Your task to perform on an android device: What's on my calendar today? Image 0: 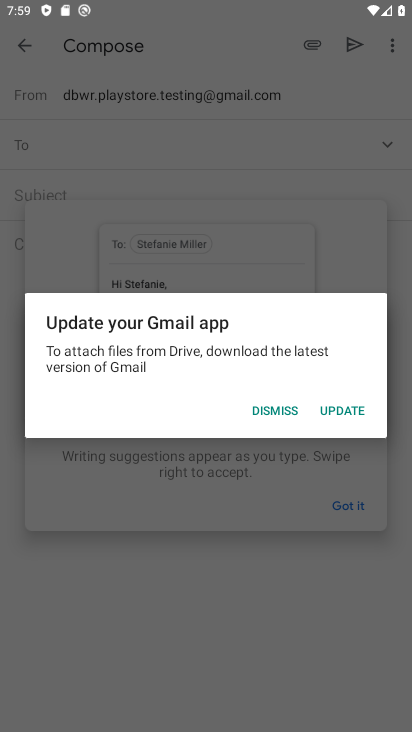
Step 0: press home button
Your task to perform on an android device: What's on my calendar today? Image 1: 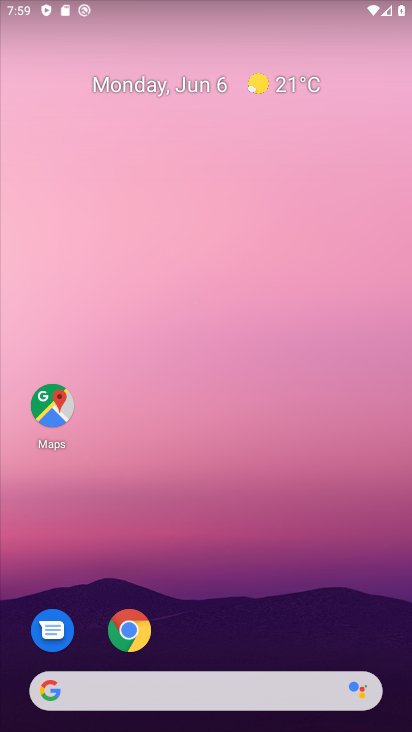
Step 1: drag from (207, 641) to (294, 32)
Your task to perform on an android device: What's on my calendar today? Image 2: 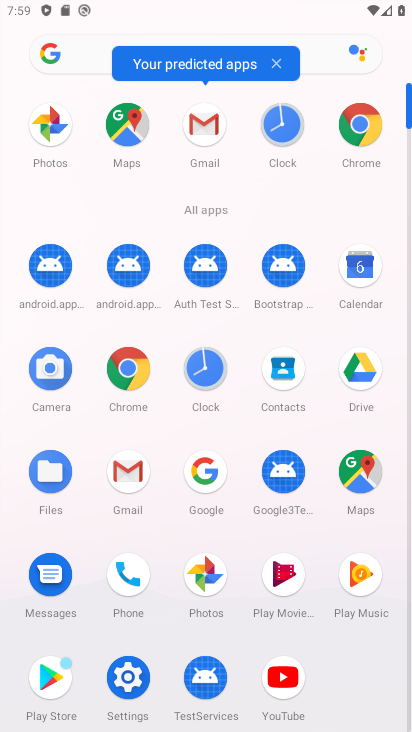
Step 2: click (362, 278)
Your task to perform on an android device: What's on my calendar today? Image 3: 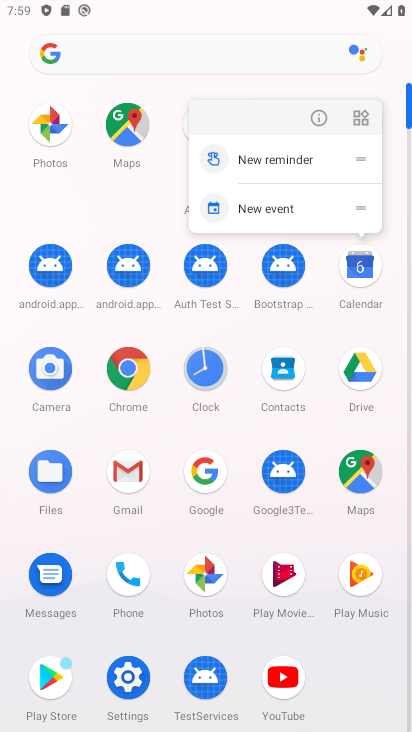
Step 3: click (362, 281)
Your task to perform on an android device: What's on my calendar today? Image 4: 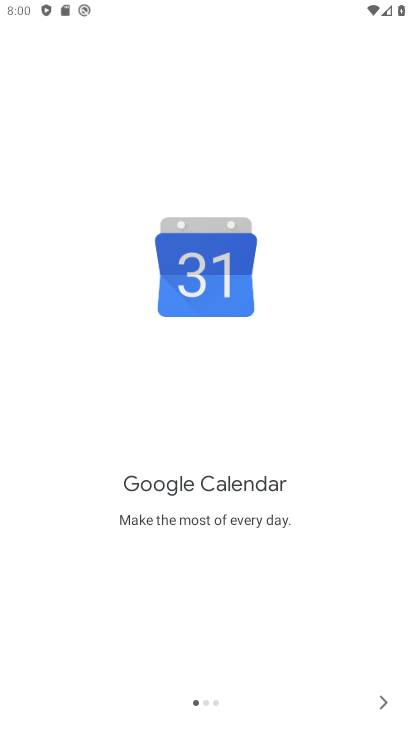
Step 4: click (391, 706)
Your task to perform on an android device: What's on my calendar today? Image 5: 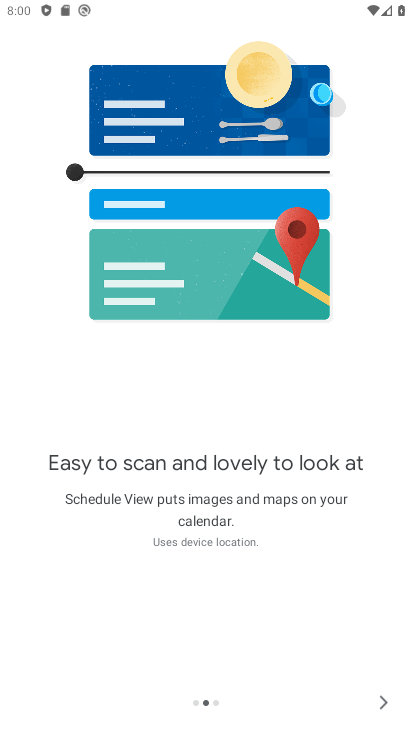
Step 5: click (388, 705)
Your task to perform on an android device: What's on my calendar today? Image 6: 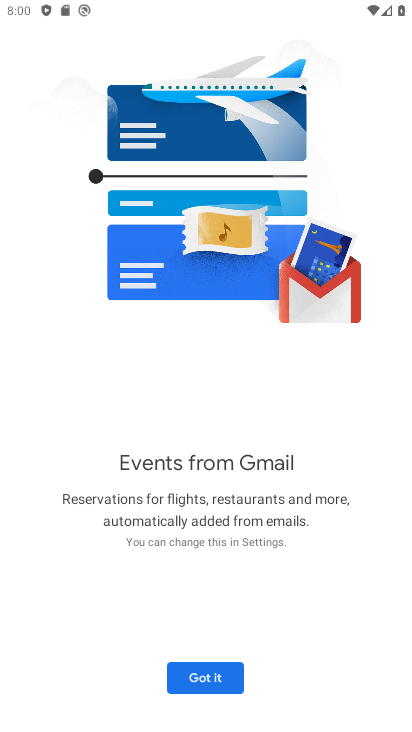
Step 6: click (227, 681)
Your task to perform on an android device: What's on my calendar today? Image 7: 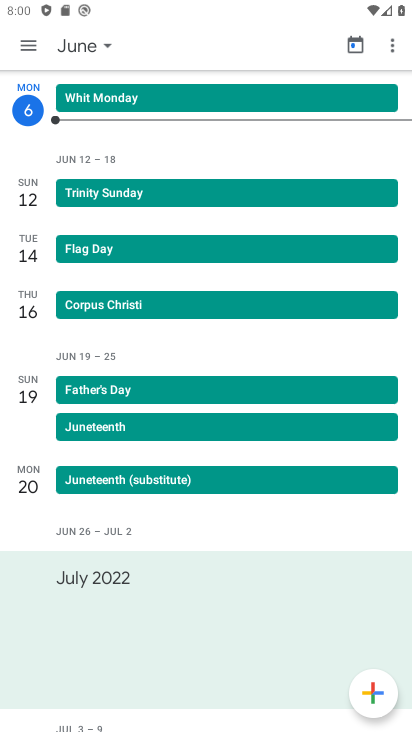
Step 7: click (41, 106)
Your task to perform on an android device: What's on my calendar today? Image 8: 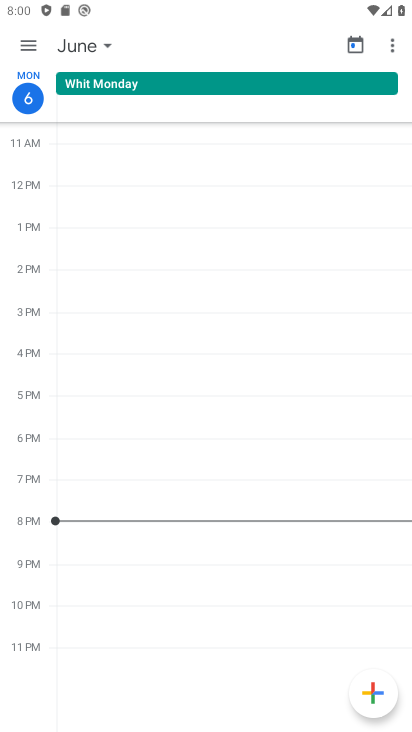
Step 8: task complete